Your task to perform on an android device: Open network settings Image 0: 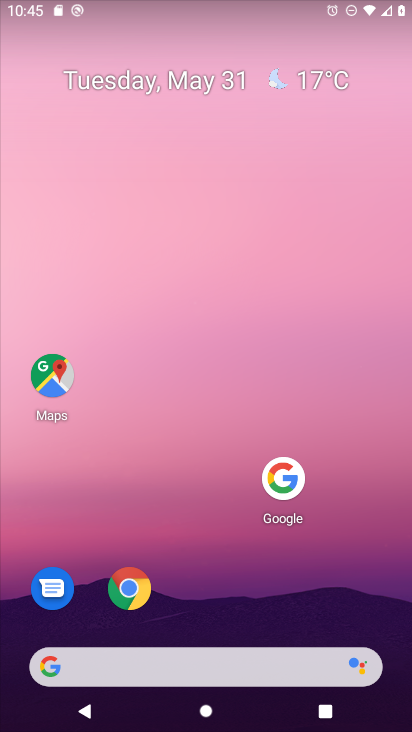
Step 0: press home button
Your task to perform on an android device: Open network settings Image 1: 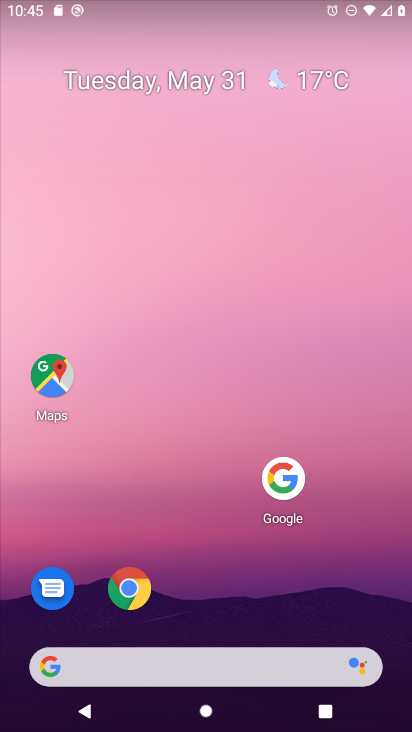
Step 1: drag from (214, 673) to (329, 71)
Your task to perform on an android device: Open network settings Image 2: 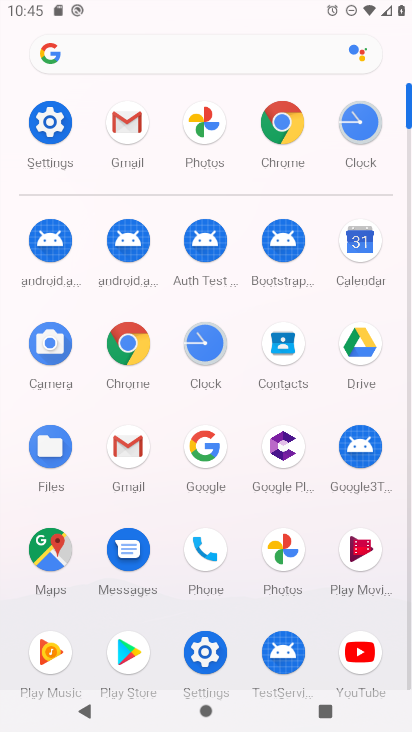
Step 2: click (55, 131)
Your task to perform on an android device: Open network settings Image 3: 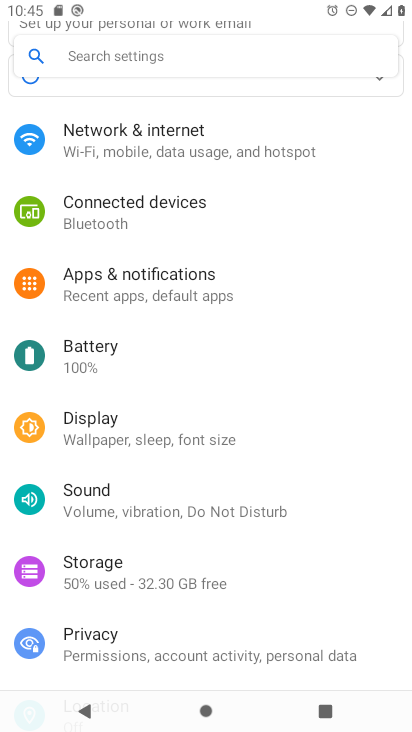
Step 3: click (187, 150)
Your task to perform on an android device: Open network settings Image 4: 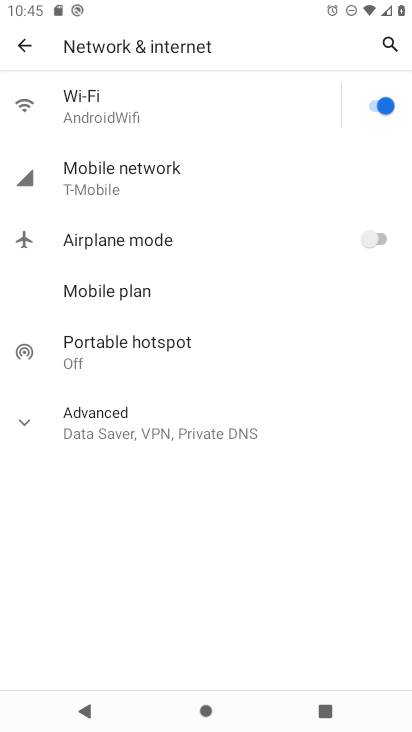
Step 4: task complete